Your task to perform on an android device: refresh tabs in the chrome app Image 0: 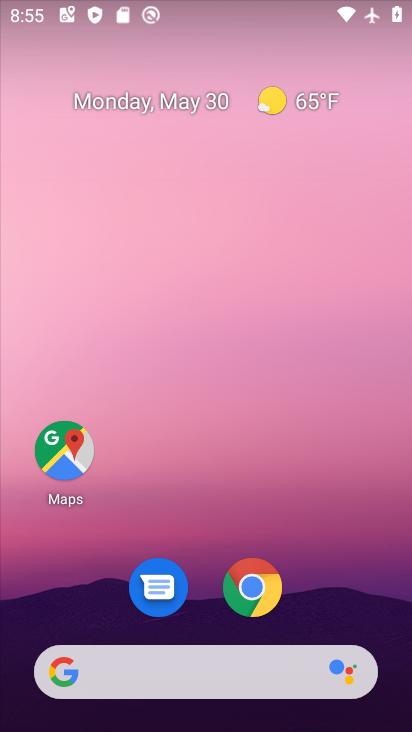
Step 0: press home button
Your task to perform on an android device: refresh tabs in the chrome app Image 1: 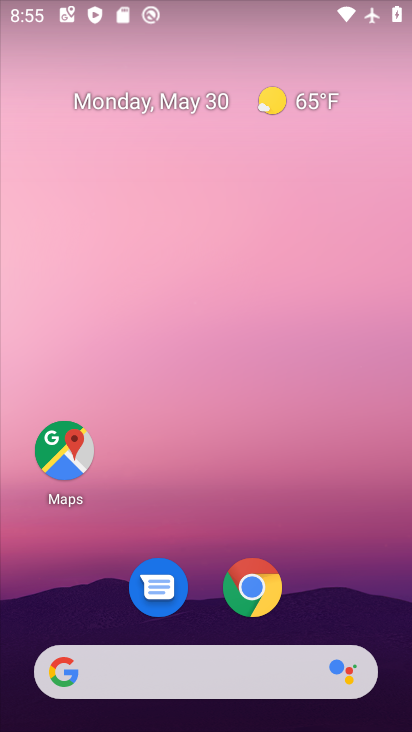
Step 1: click (245, 595)
Your task to perform on an android device: refresh tabs in the chrome app Image 2: 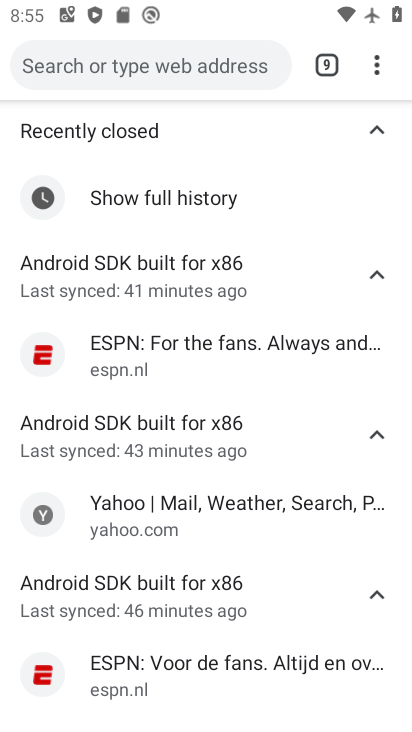
Step 2: click (375, 82)
Your task to perform on an android device: refresh tabs in the chrome app Image 3: 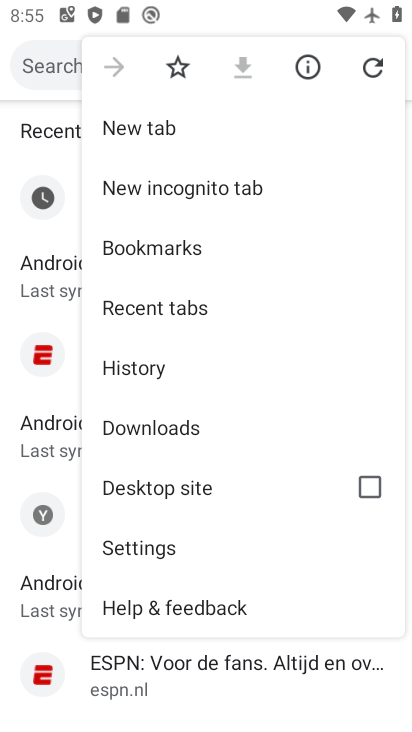
Step 3: click (364, 69)
Your task to perform on an android device: refresh tabs in the chrome app Image 4: 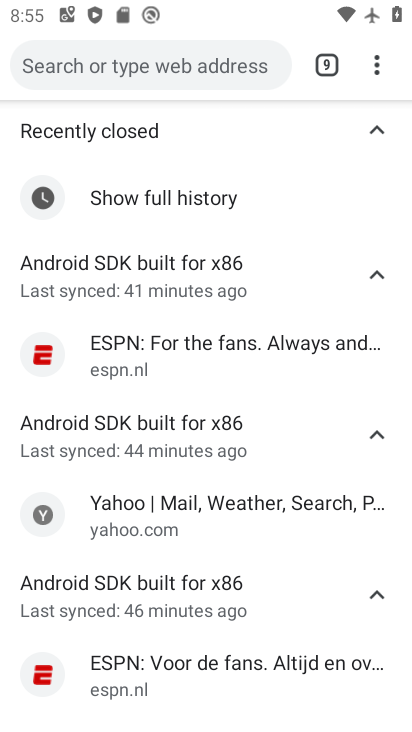
Step 4: task complete